Your task to perform on an android device: show emergency info Image 0: 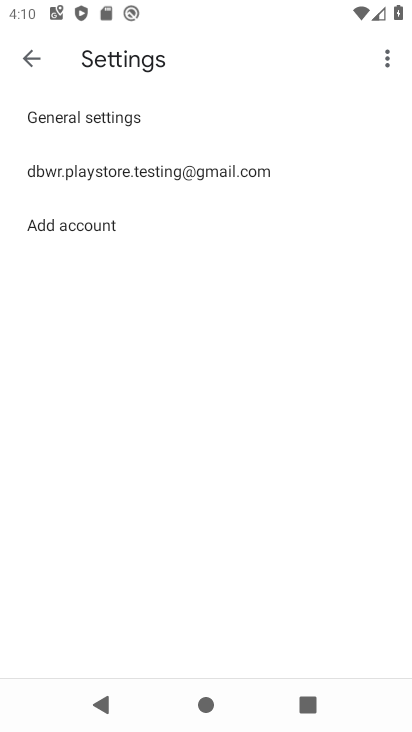
Step 0: press home button
Your task to perform on an android device: show emergency info Image 1: 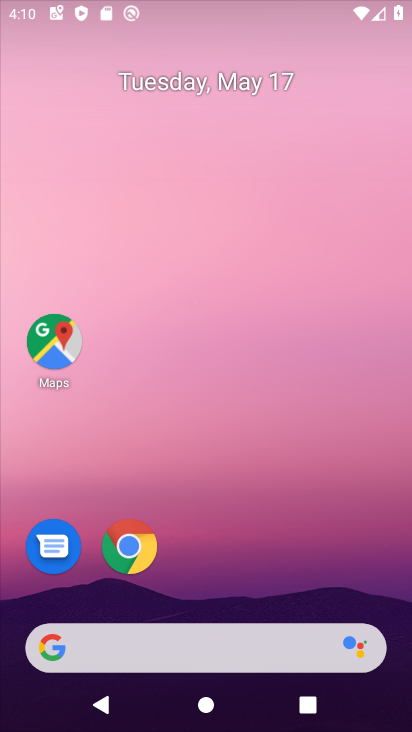
Step 1: drag from (252, 444) to (286, 120)
Your task to perform on an android device: show emergency info Image 2: 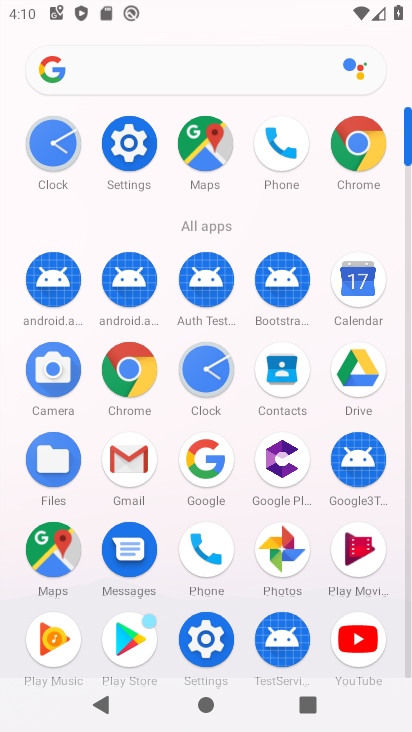
Step 2: click (128, 146)
Your task to perform on an android device: show emergency info Image 3: 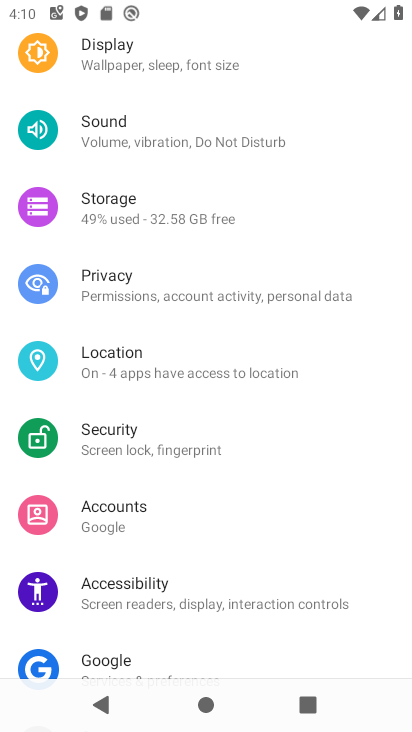
Step 3: drag from (177, 171) to (209, 485)
Your task to perform on an android device: show emergency info Image 4: 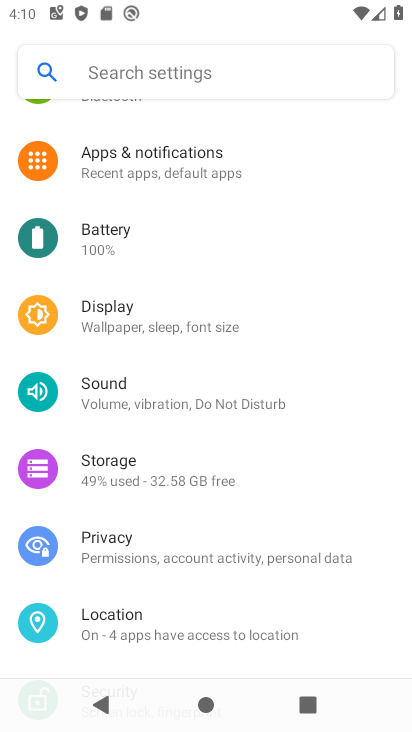
Step 4: click (244, 77)
Your task to perform on an android device: show emergency info Image 5: 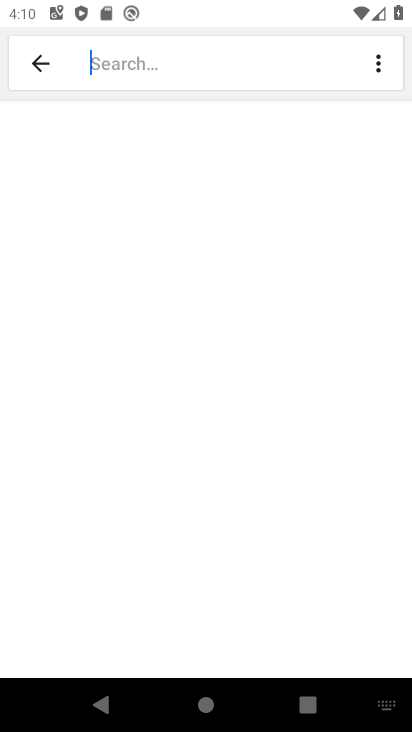
Step 5: type "emergency info"
Your task to perform on an android device: show emergency info Image 6: 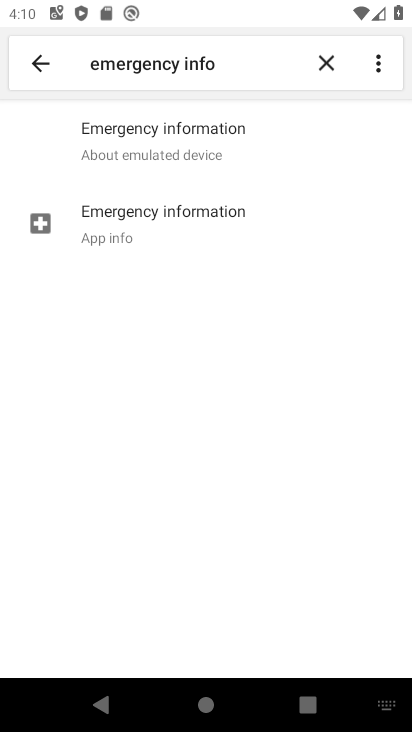
Step 6: click (236, 150)
Your task to perform on an android device: show emergency info Image 7: 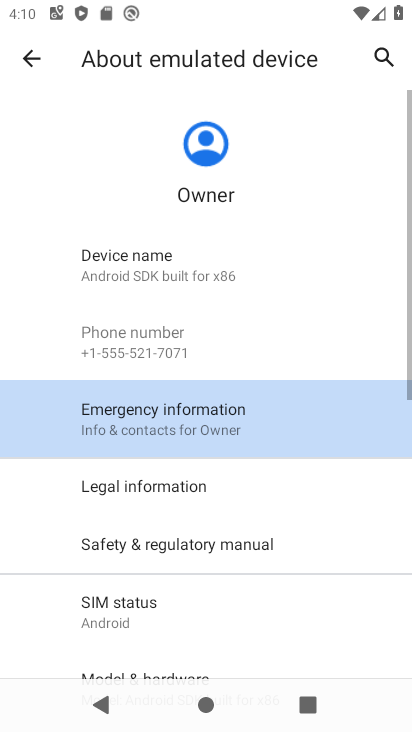
Step 7: click (260, 409)
Your task to perform on an android device: show emergency info Image 8: 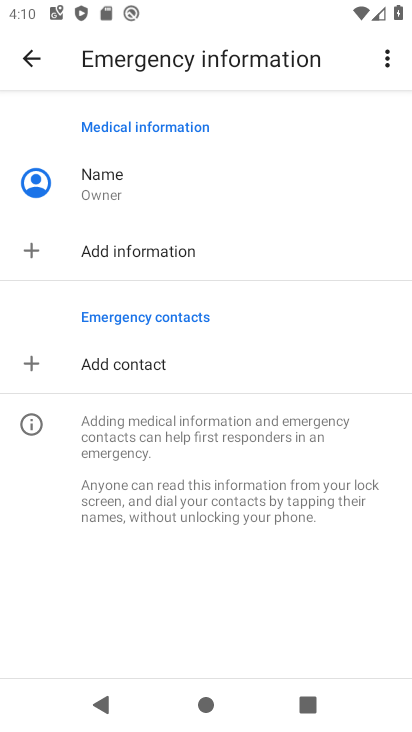
Step 8: task complete